Your task to perform on an android device: install app "TextNow: Call + Text Unlimited" Image 0: 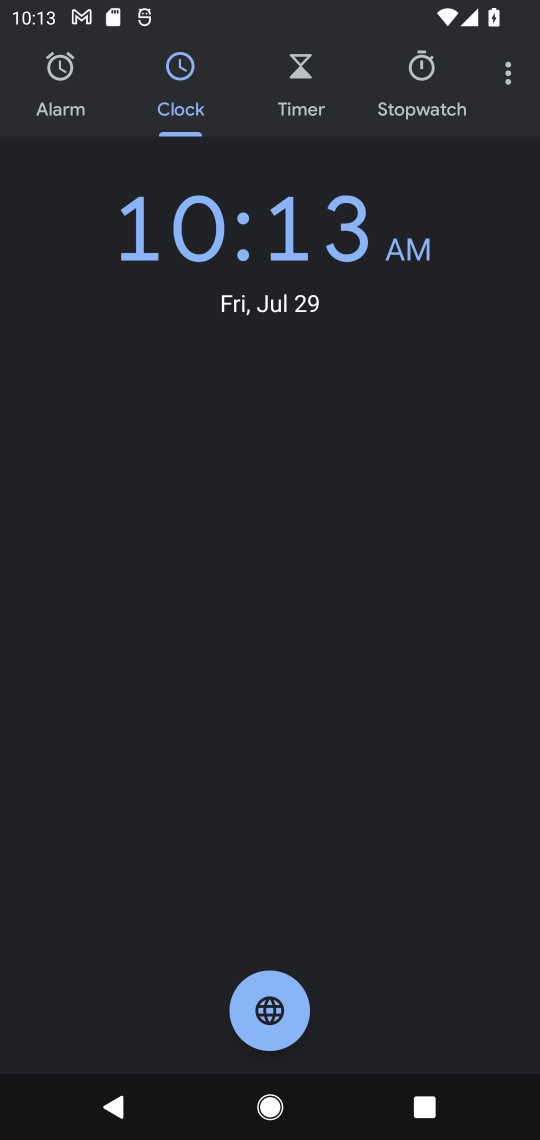
Step 0: press home button
Your task to perform on an android device: install app "TextNow: Call + Text Unlimited" Image 1: 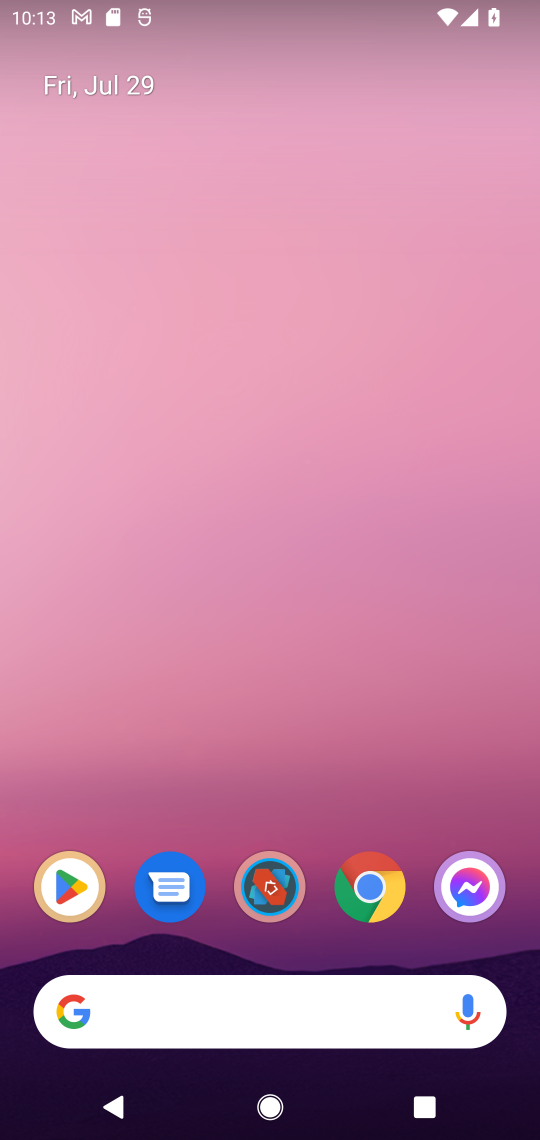
Step 1: click (85, 862)
Your task to perform on an android device: install app "TextNow: Call + Text Unlimited" Image 2: 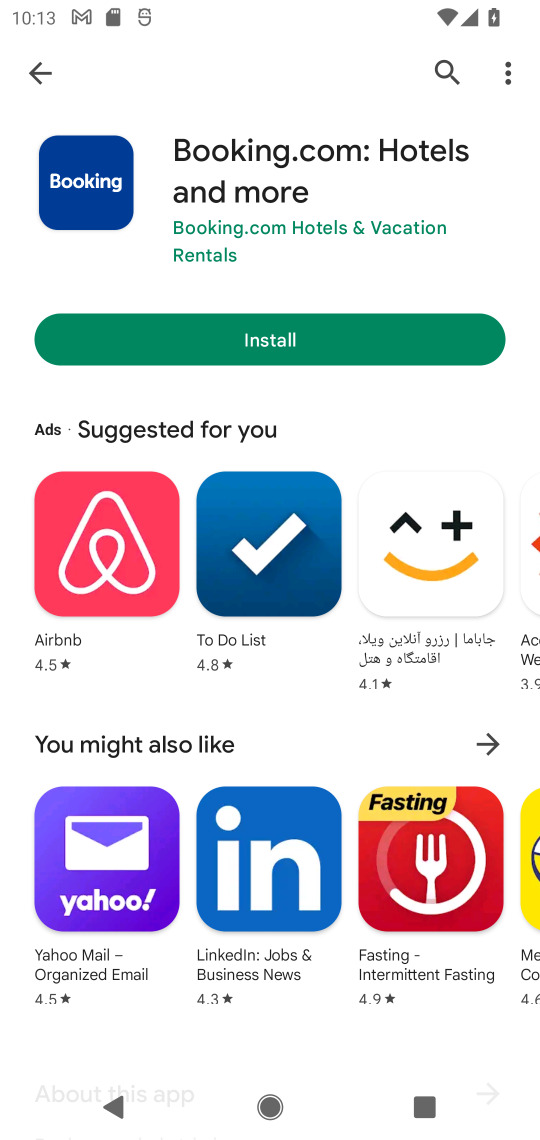
Step 2: click (441, 64)
Your task to perform on an android device: install app "TextNow: Call + Text Unlimited" Image 3: 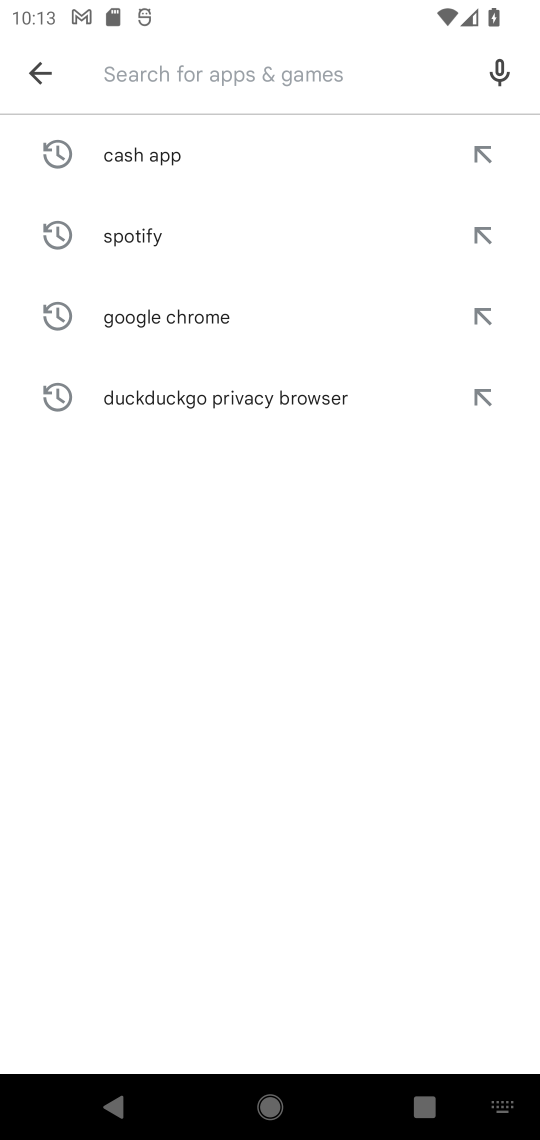
Step 3: type "textnow: call + text unlimited"
Your task to perform on an android device: install app "TextNow: Call + Text Unlimited" Image 4: 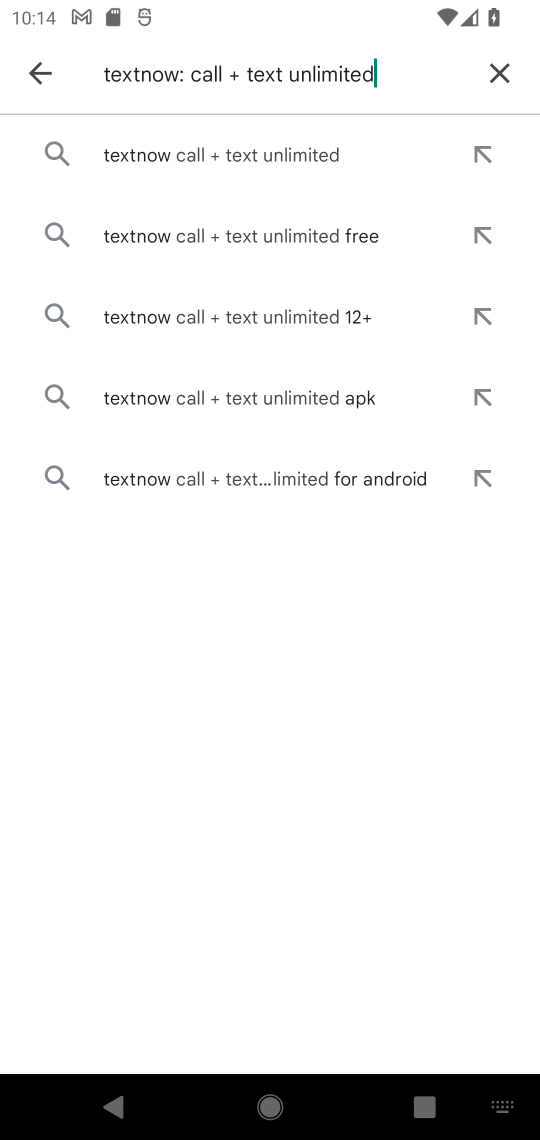
Step 4: click (189, 137)
Your task to perform on an android device: install app "TextNow: Call + Text Unlimited" Image 5: 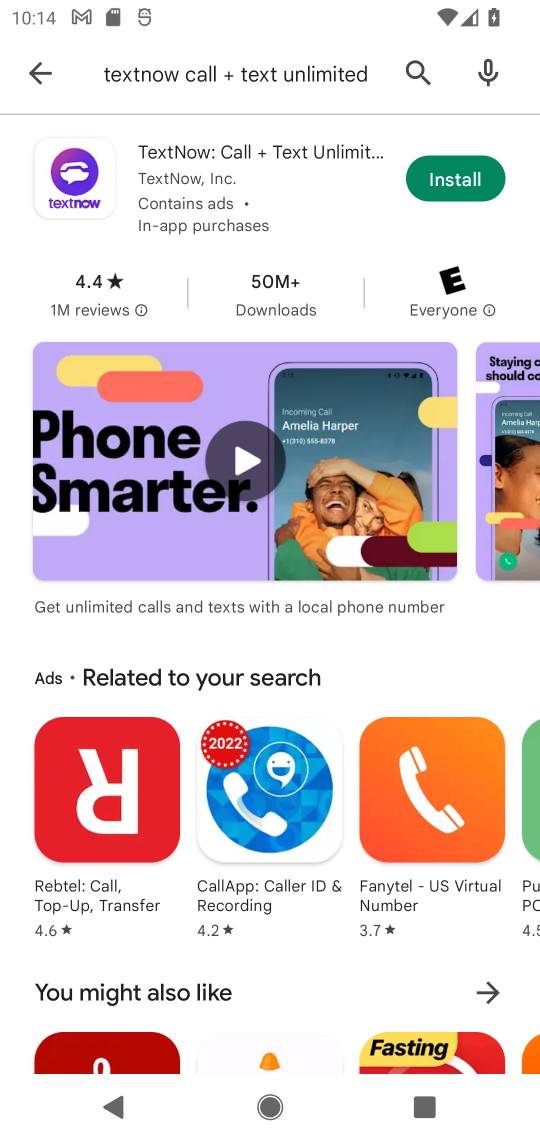
Step 5: click (197, 138)
Your task to perform on an android device: install app "TextNow: Call + Text Unlimited" Image 6: 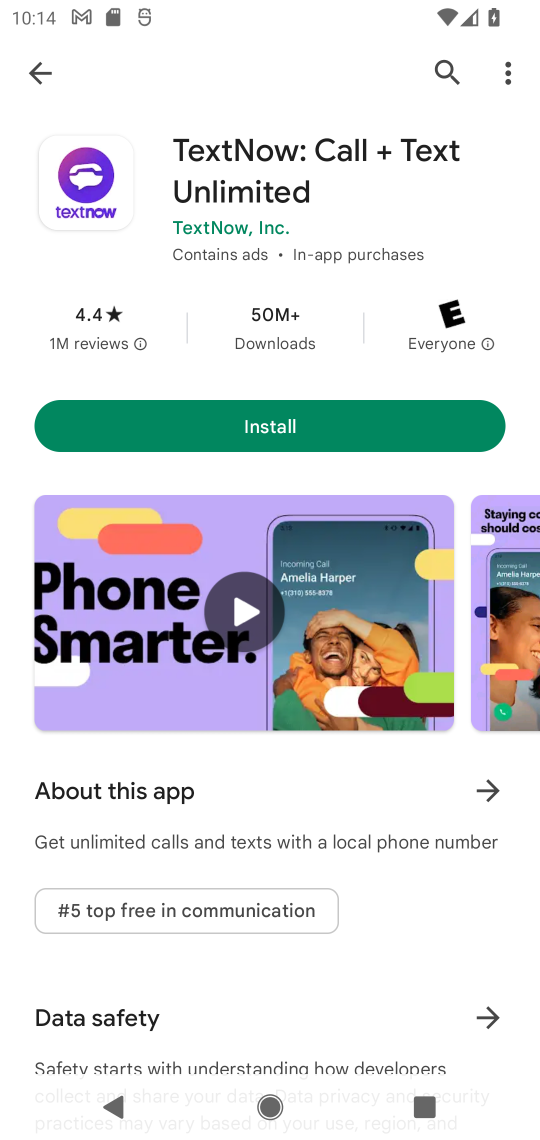
Step 6: click (258, 431)
Your task to perform on an android device: install app "TextNow: Call + Text Unlimited" Image 7: 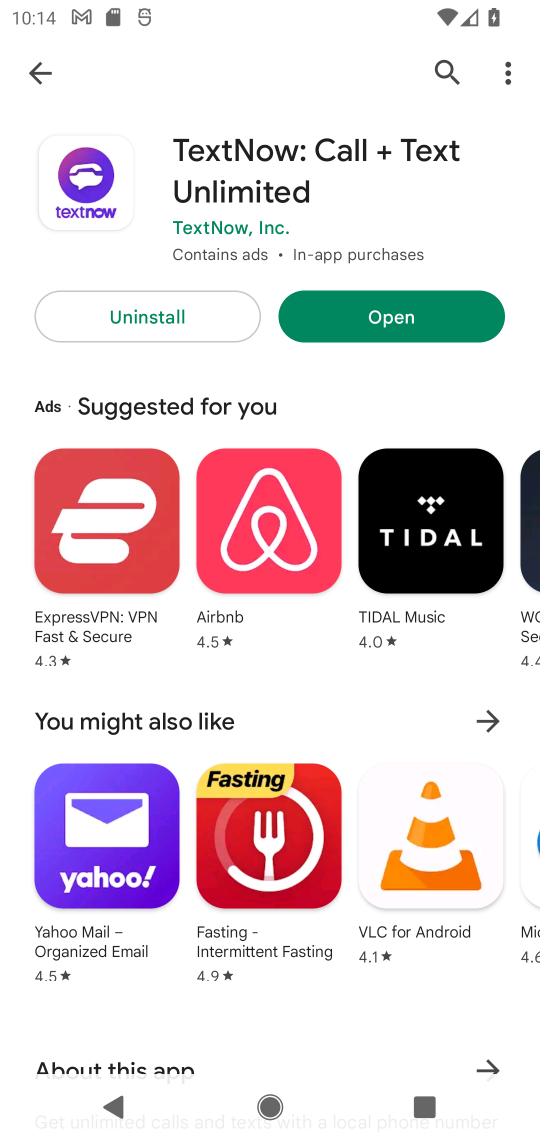
Step 7: task complete